Your task to perform on an android device: See recent photos Image 0: 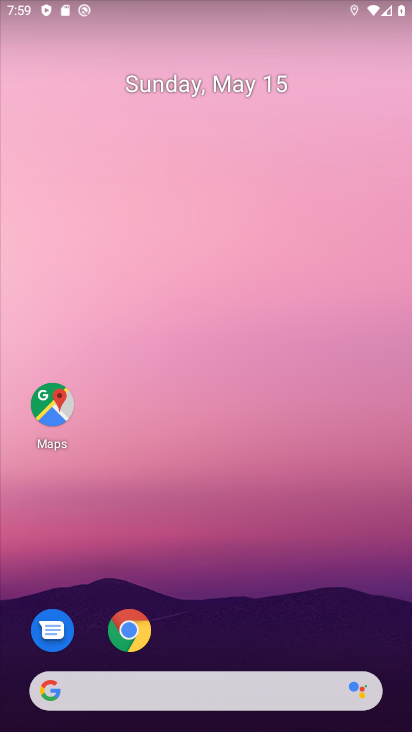
Step 0: drag from (221, 649) to (194, 179)
Your task to perform on an android device: See recent photos Image 1: 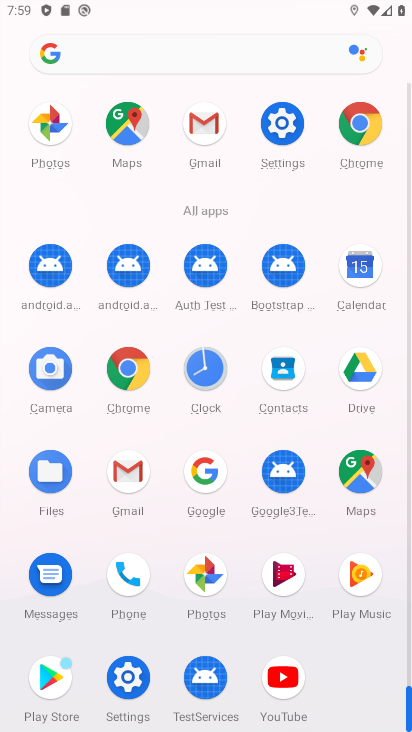
Step 1: click (204, 574)
Your task to perform on an android device: See recent photos Image 2: 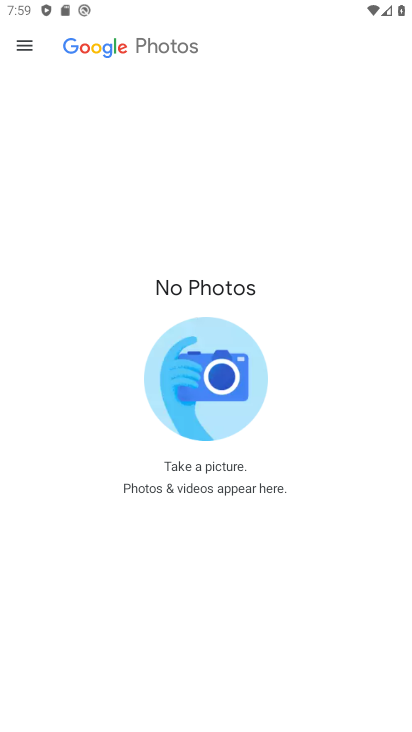
Step 2: click (32, 47)
Your task to perform on an android device: See recent photos Image 3: 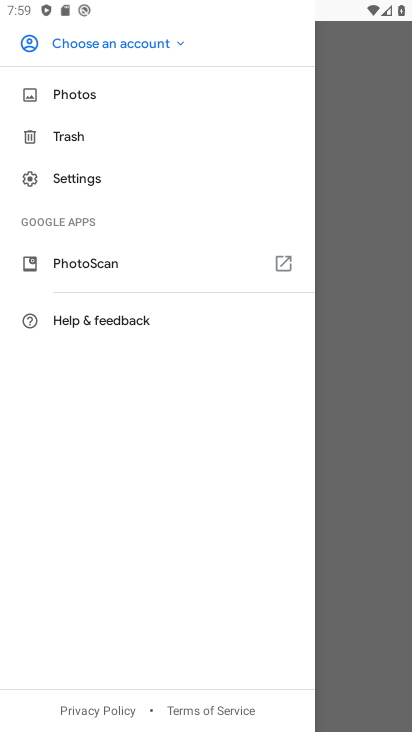
Step 3: click (137, 39)
Your task to perform on an android device: See recent photos Image 4: 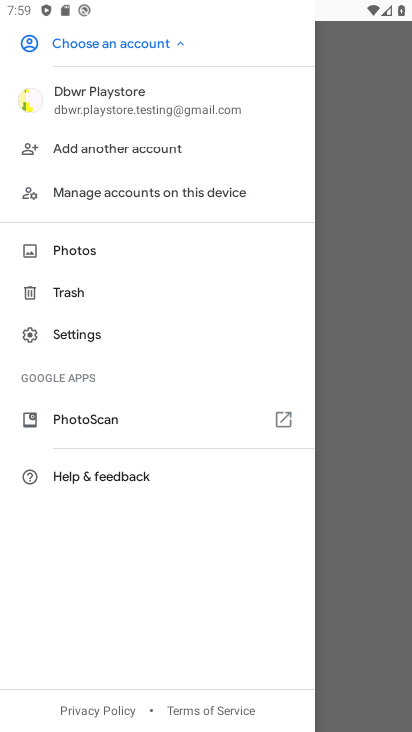
Step 4: click (157, 116)
Your task to perform on an android device: See recent photos Image 5: 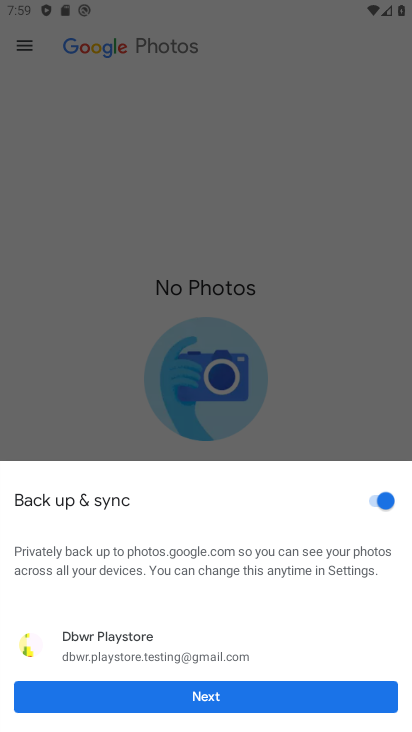
Step 5: click (159, 698)
Your task to perform on an android device: See recent photos Image 6: 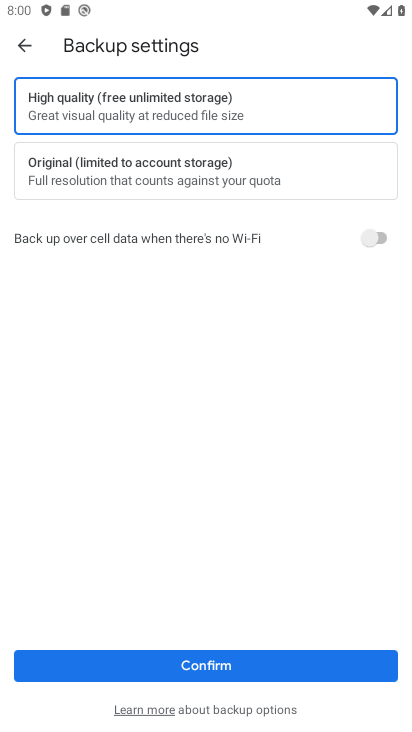
Step 6: click (186, 679)
Your task to perform on an android device: See recent photos Image 7: 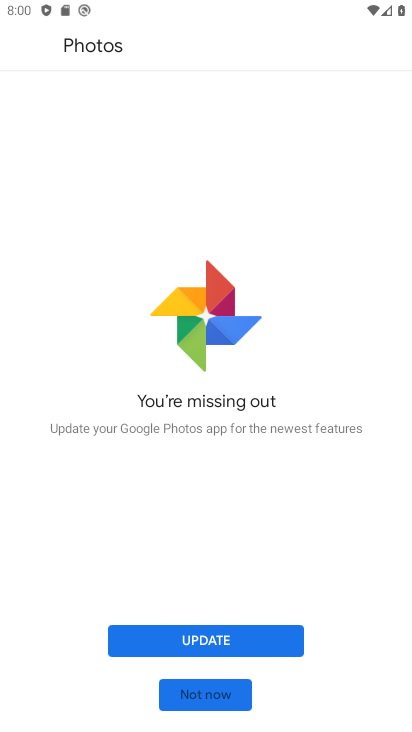
Step 7: click (217, 696)
Your task to perform on an android device: See recent photos Image 8: 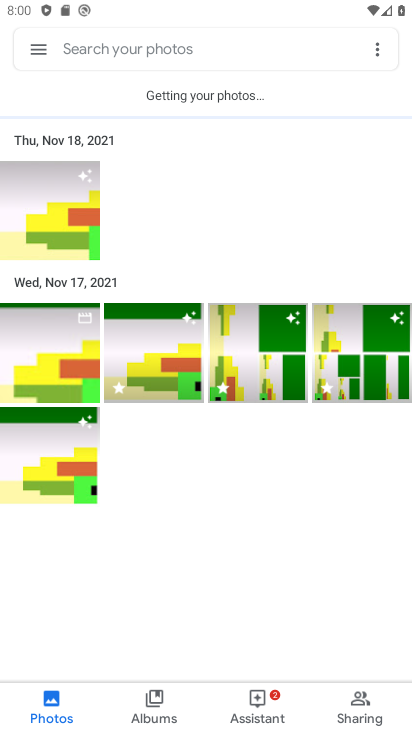
Step 8: task complete